Your task to perform on an android device: Search for vegetarian restaurants on Maps Image 0: 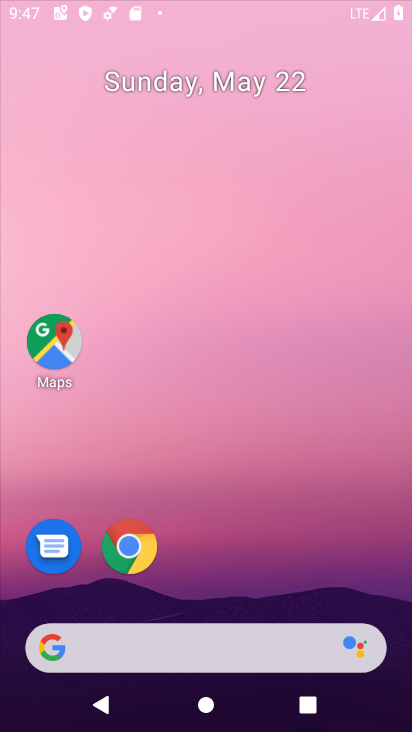
Step 0: click (300, 133)
Your task to perform on an android device: Search for vegetarian restaurants on Maps Image 1: 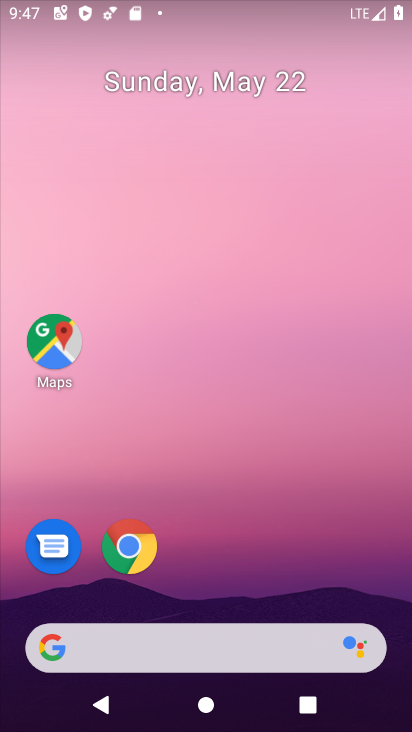
Step 1: drag from (199, 542) to (219, 123)
Your task to perform on an android device: Search for vegetarian restaurants on Maps Image 2: 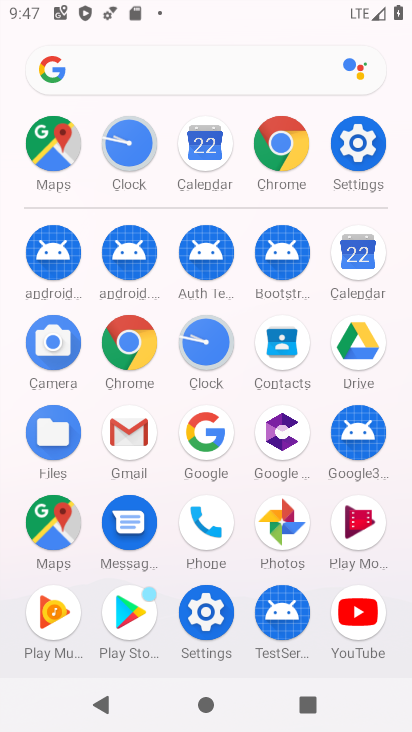
Step 2: click (34, 520)
Your task to perform on an android device: Search for vegetarian restaurants on Maps Image 3: 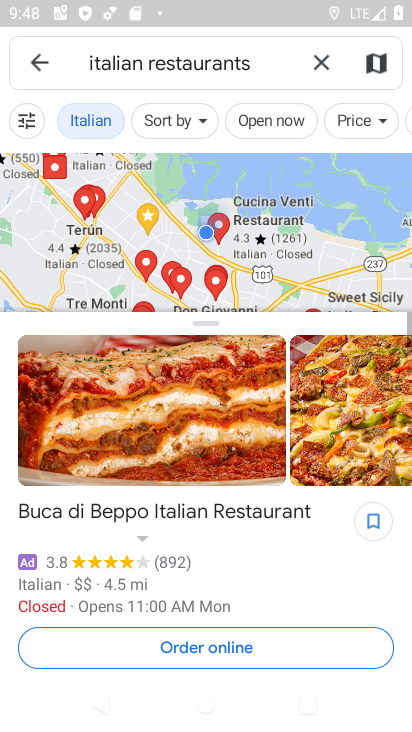
Step 3: drag from (146, 582) to (203, 291)
Your task to perform on an android device: Search for vegetarian restaurants on Maps Image 4: 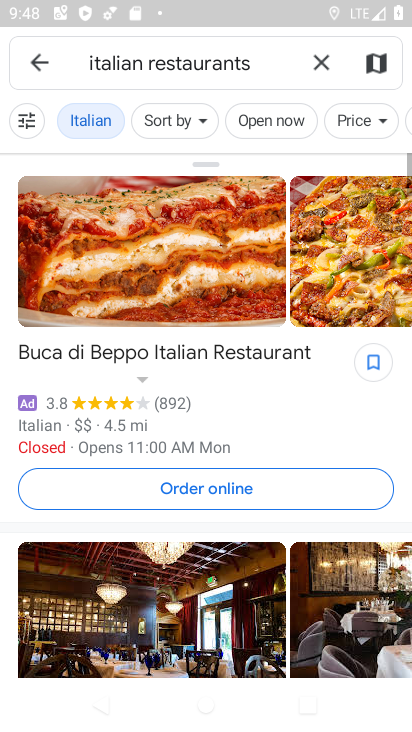
Step 4: drag from (212, 170) to (275, 714)
Your task to perform on an android device: Search for vegetarian restaurants on Maps Image 5: 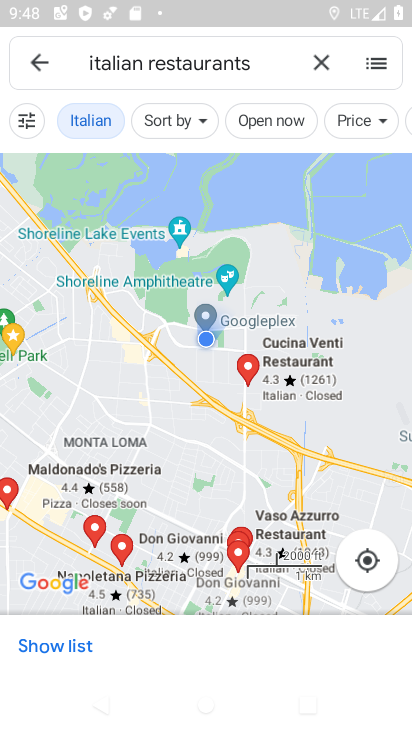
Step 5: click (323, 58)
Your task to perform on an android device: Search for vegetarian restaurants on Maps Image 6: 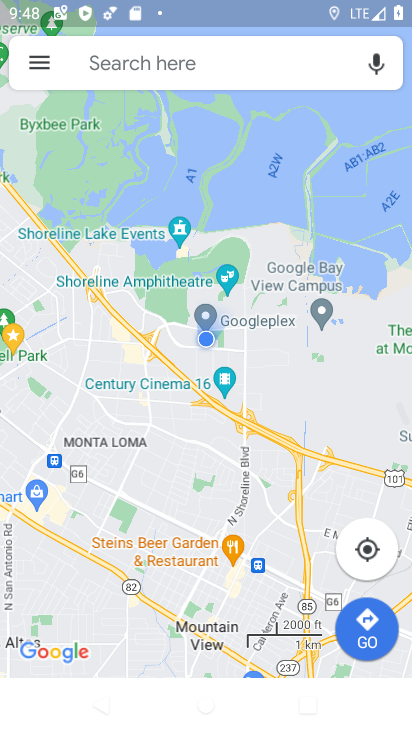
Step 6: click (223, 59)
Your task to perform on an android device: Search for vegetarian restaurants on Maps Image 7: 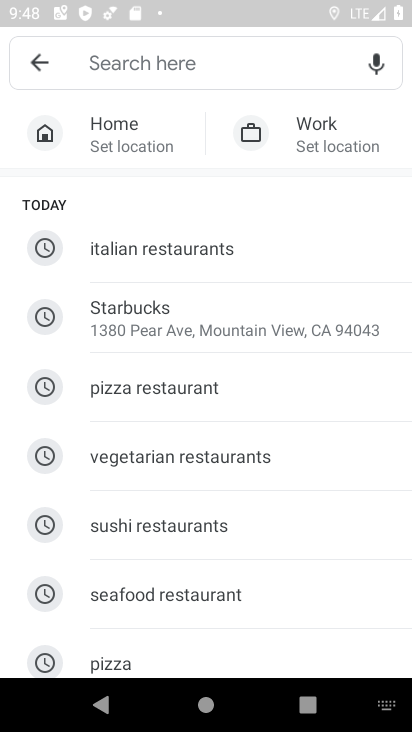
Step 7: click (173, 460)
Your task to perform on an android device: Search for vegetarian restaurants on Maps Image 8: 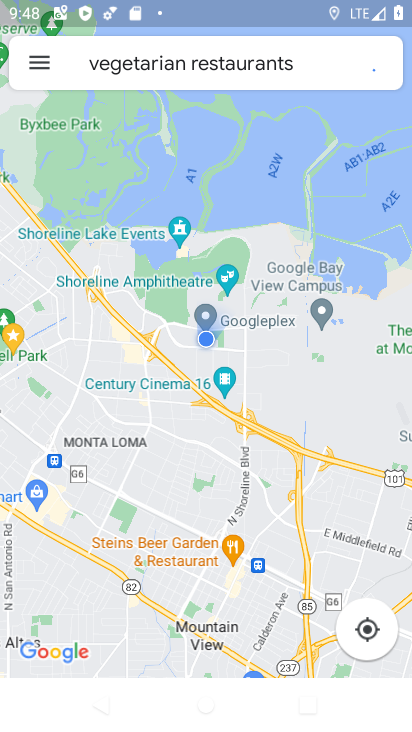
Step 8: task complete